Your task to perform on an android device: turn off notifications settings in the gmail app Image 0: 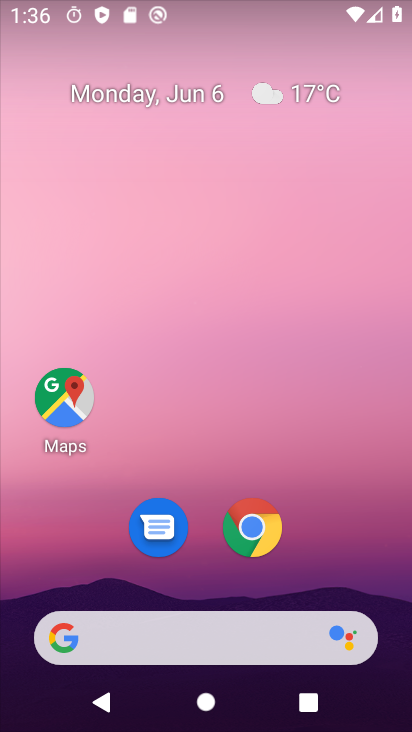
Step 0: drag from (233, 725) to (212, 63)
Your task to perform on an android device: turn off notifications settings in the gmail app Image 1: 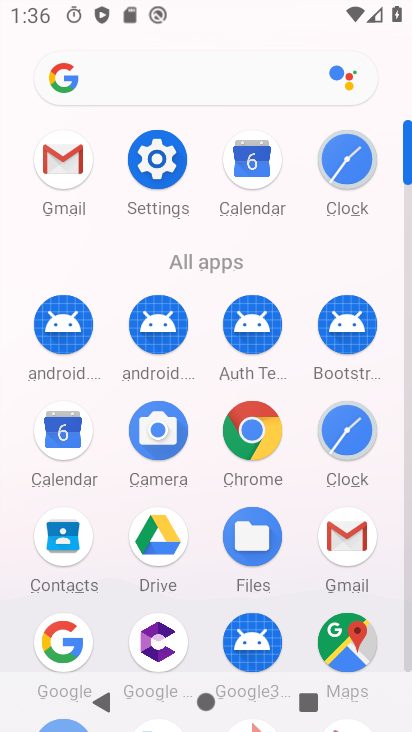
Step 1: click (343, 541)
Your task to perform on an android device: turn off notifications settings in the gmail app Image 2: 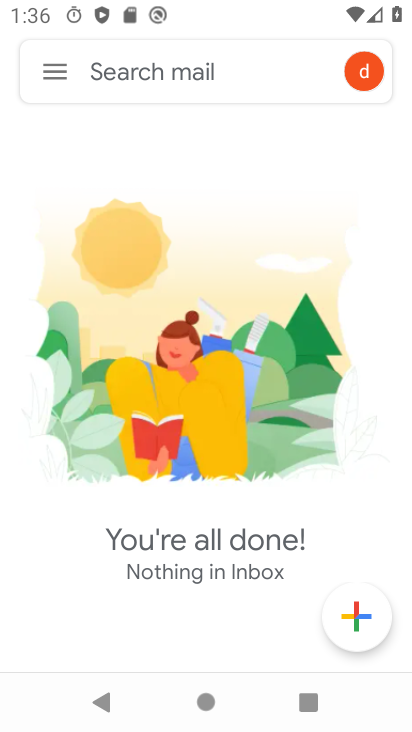
Step 2: click (59, 76)
Your task to perform on an android device: turn off notifications settings in the gmail app Image 3: 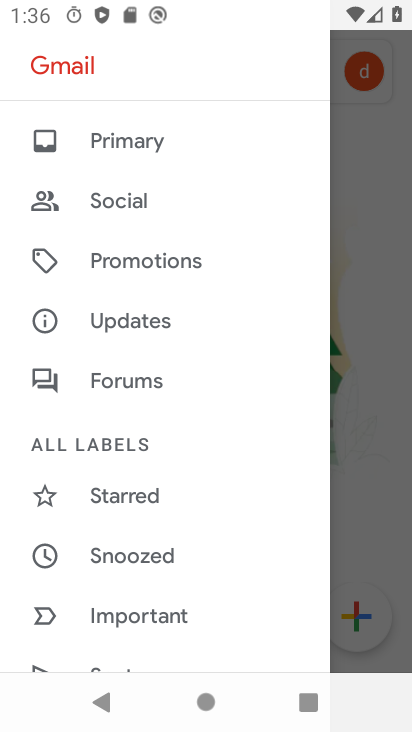
Step 3: drag from (164, 651) to (158, 204)
Your task to perform on an android device: turn off notifications settings in the gmail app Image 4: 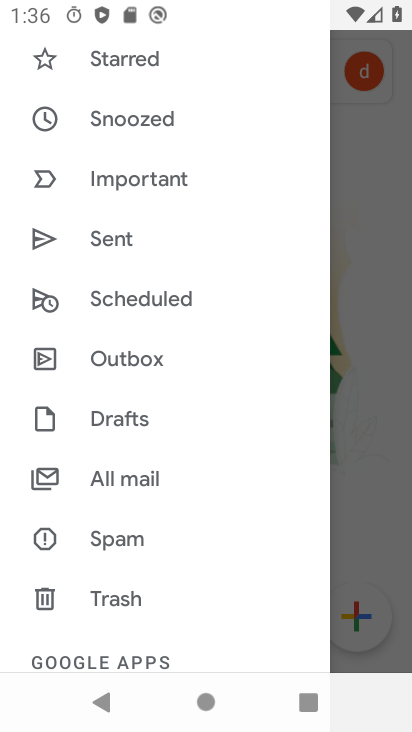
Step 4: drag from (147, 643) to (147, 265)
Your task to perform on an android device: turn off notifications settings in the gmail app Image 5: 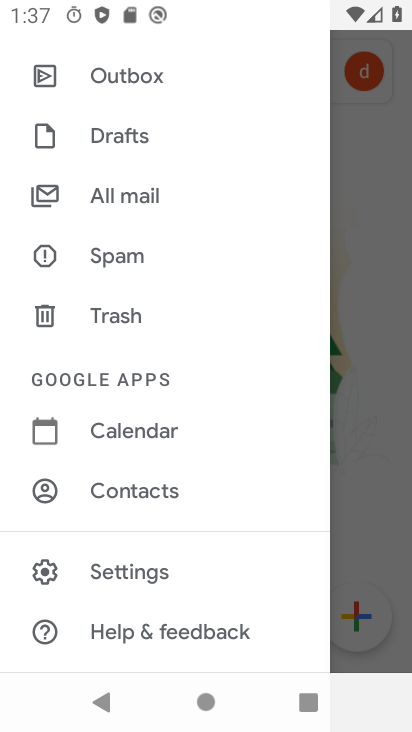
Step 5: click (130, 572)
Your task to perform on an android device: turn off notifications settings in the gmail app Image 6: 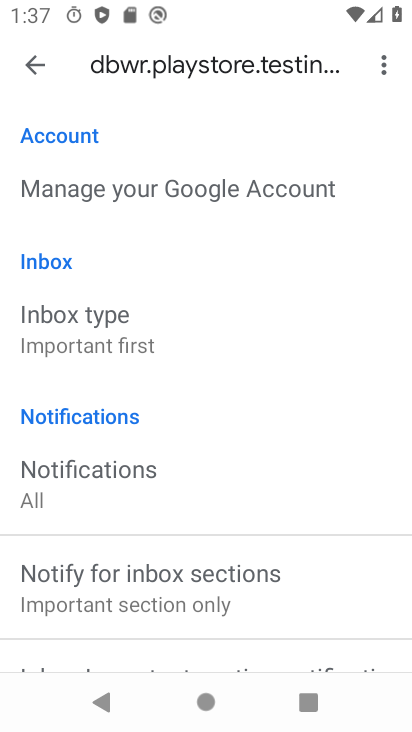
Step 6: click (101, 469)
Your task to perform on an android device: turn off notifications settings in the gmail app Image 7: 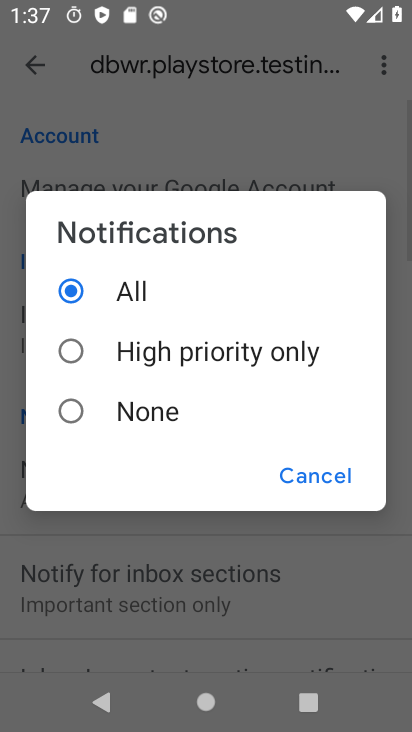
Step 7: click (70, 409)
Your task to perform on an android device: turn off notifications settings in the gmail app Image 8: 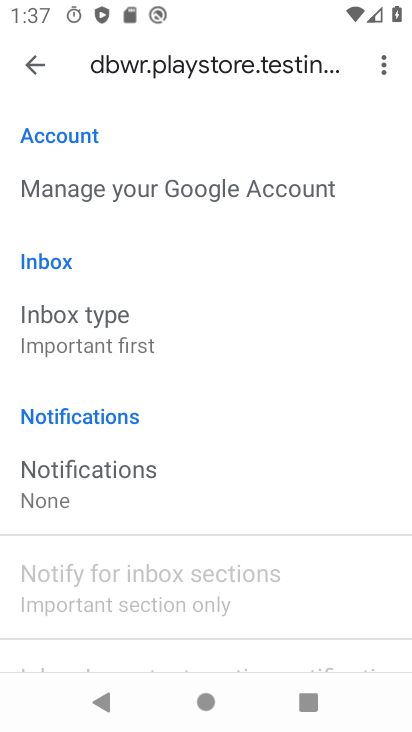
Step 8: task complete